Your task to perform on an android device: turn on improve location accuracy Image 0: 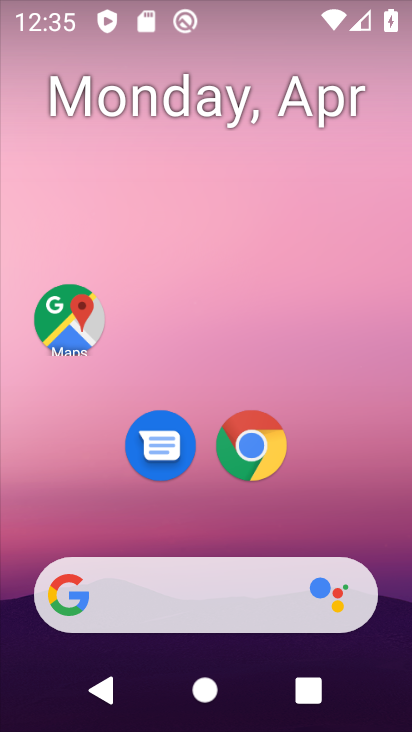
Step 0: drag from (379, 416) to (381, 117)
Your task to perform on an android device: turn on improve location accuracy Image 1: 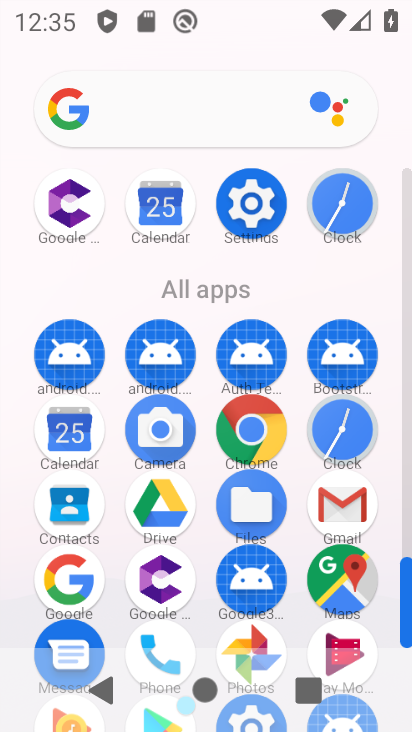
Step 1: click (251, 209)
Your task to perform on an android device: turn on improve location accuracy Image 2: 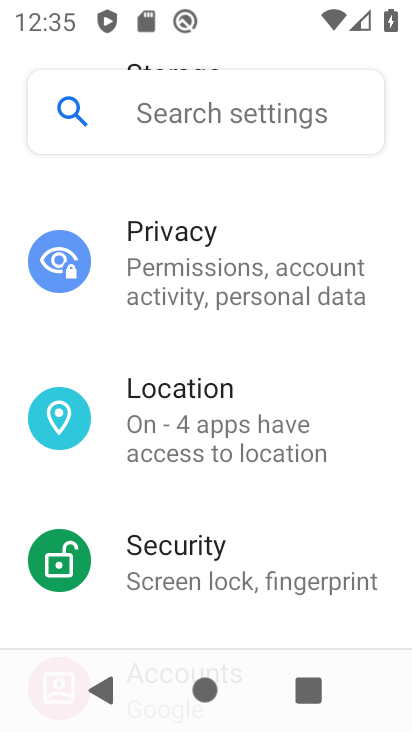
Step 2: drag from (386, 216) to (381, 398)
Your task to perform on an android device: turn on improve location accuracy Image 3: 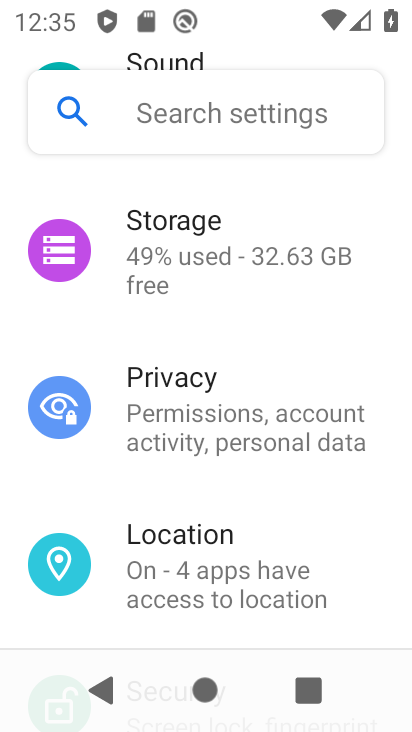
Step 3: drag from (386, 205) to (392, 351)
Your task to perform on an android device: turn on improve location accuracy Image 4: 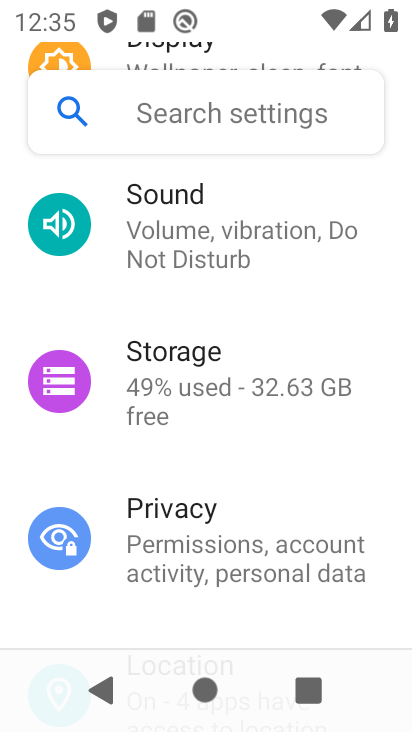
Step 4: drag from (376, 187) to (373, 362)
Your task to perform on an android device: turn on improve location accuracy Image 5: 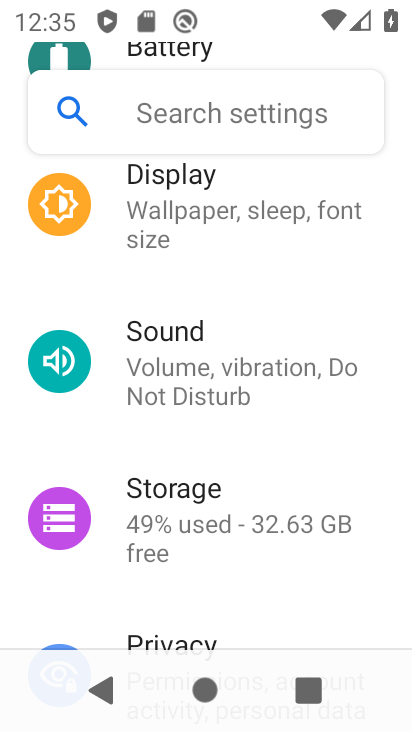
Step 5: drag from (385, 208) to (376, 355)
Your task to perform on an android device: turn on improve location accuracy Image 6: 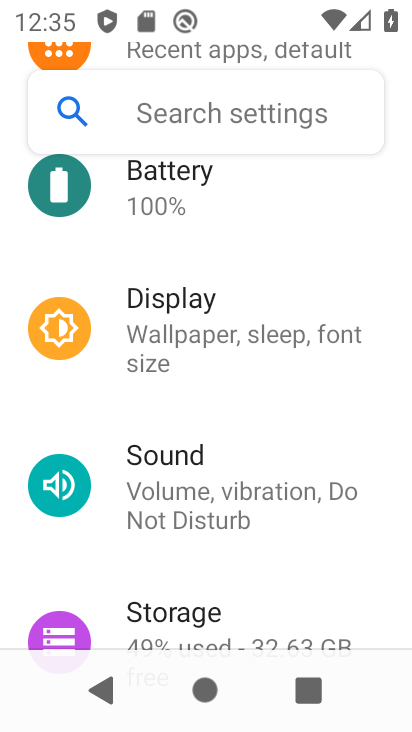
Step 6: drag from (376, 229) to (370, 406)
Your task to perform on an android device: turn on improve location accuracy Image 7: 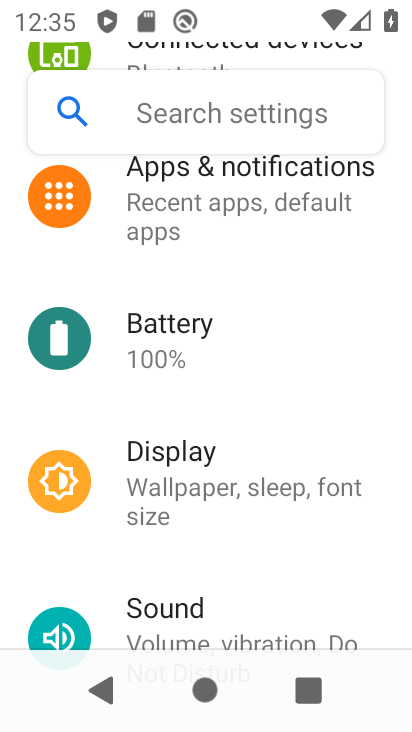
Step 7: drag from (370, 211) to (362, 371)
Your task to perform on an android device: turn on improve location accuracy Image 8: 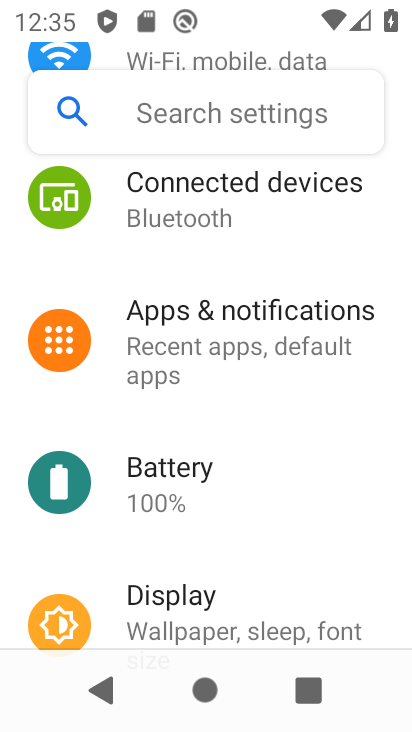
Step 8: drag from (383, 203) to (369, 482)
Your task to perform on an android device: turn on improve location accuracy Image 9: 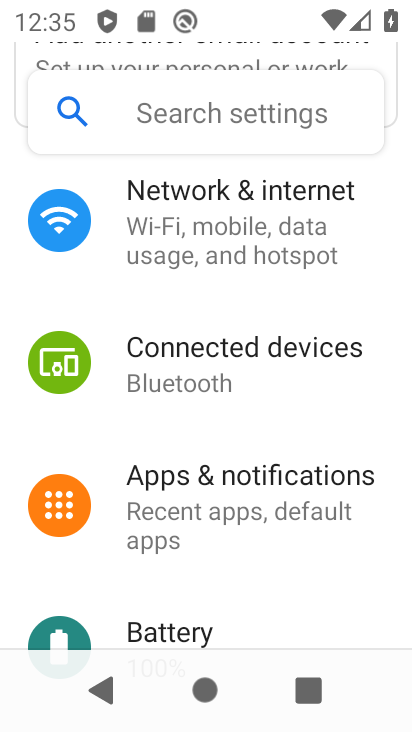
Step 9: drag from (379, 202) to (372, 384)
Your task to perform on an android device: turn on improve location accuracy Image 10: 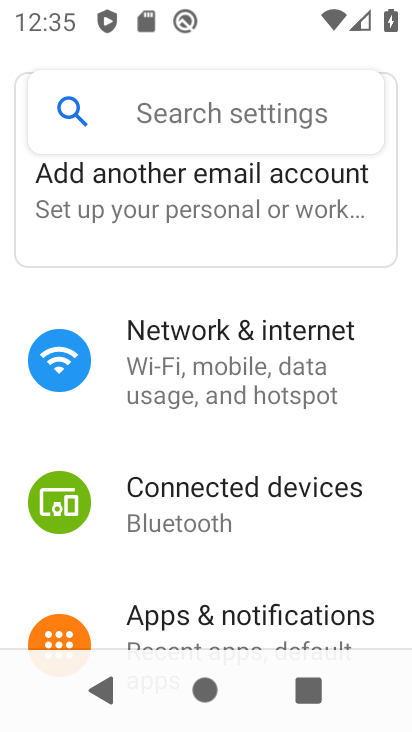
Step 10: drag from (377, 440) to (384, 254)
Your task to perform on an android device: turn on improve location accuracy Image 11: 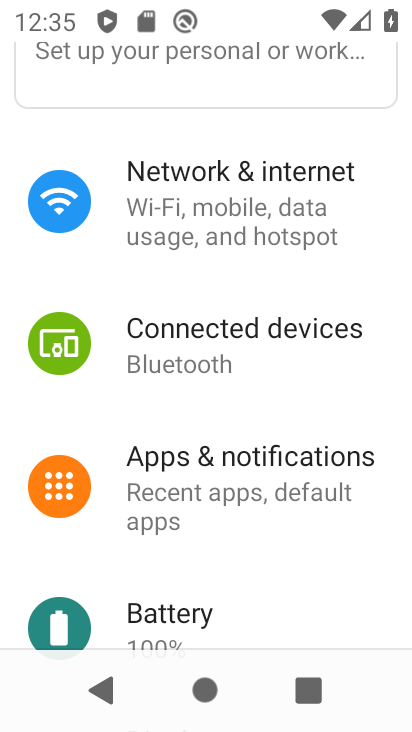
Step 11: drag from (387, 403) to (406, 299)
Your task to perform on an android device: turn on improve location accuracy Image 12: 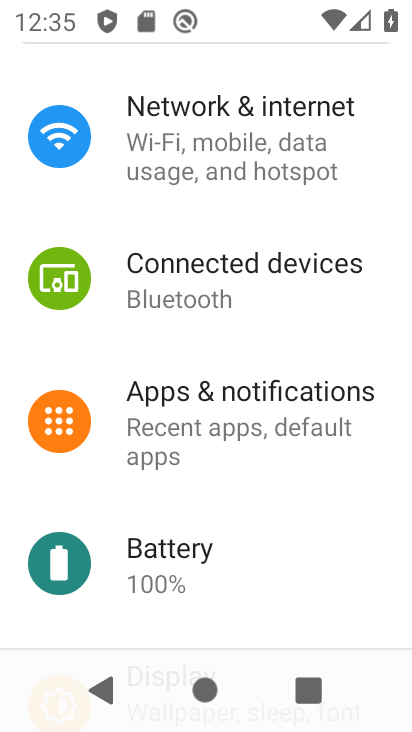
Step 12: drag from (375, 568) to (391, 339)
Your task to perform on an android device: turn on improve location accuracy Image 13: 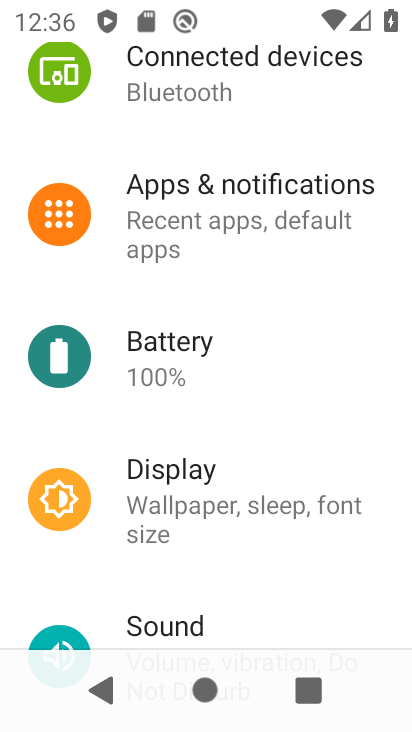
Step 13: drag from (386, 605) to (383, 277)
Your task to perform on an android device: turn on improve location accuracy Image 14: 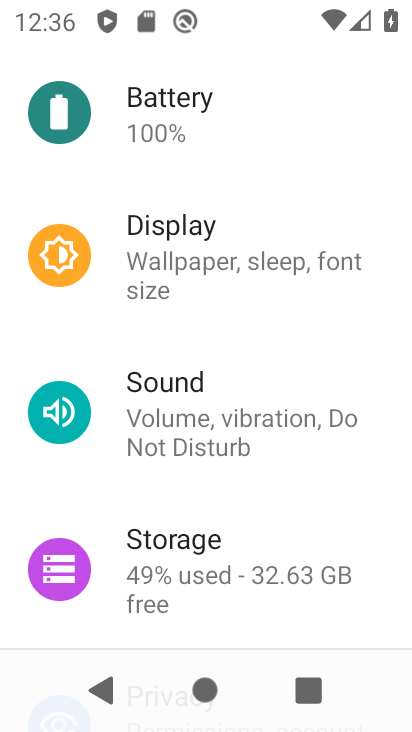
Step 14: drag from (370, 554) to (359, 249)
Your task to perform on an android device: turn on improve location accuracy Image 15: 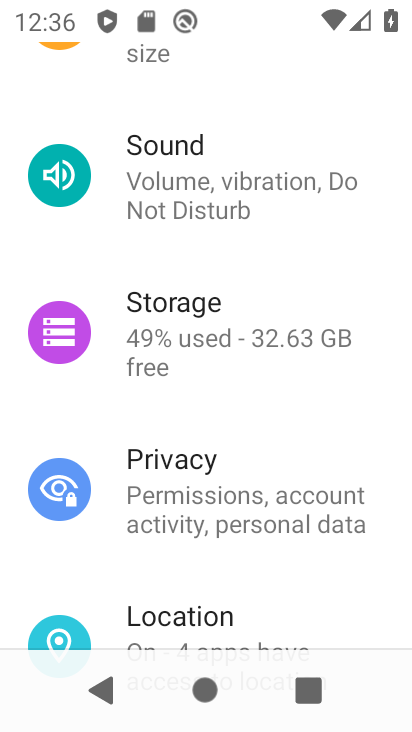
Step 15: drag from (336, 541) to (334, 384)
Your task to perform on an android device: turn on improve location accuracy Image 16: 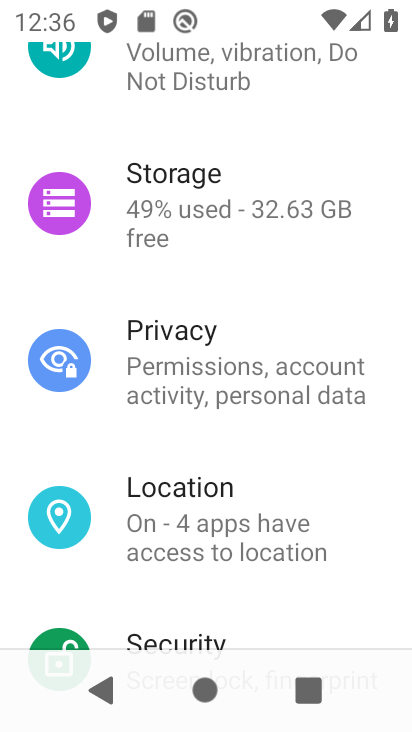
Step 16: click (277, 519)
Your task to perform on an android device: turn on improve location accuracy Image 17: 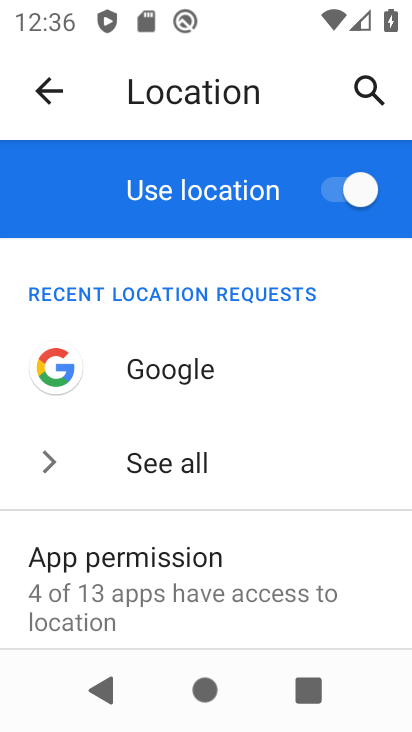
Step 17: drag from (338, 542) to (355, 310)
Your task to perform on an android device: turn on improve location accuracy Image 18: 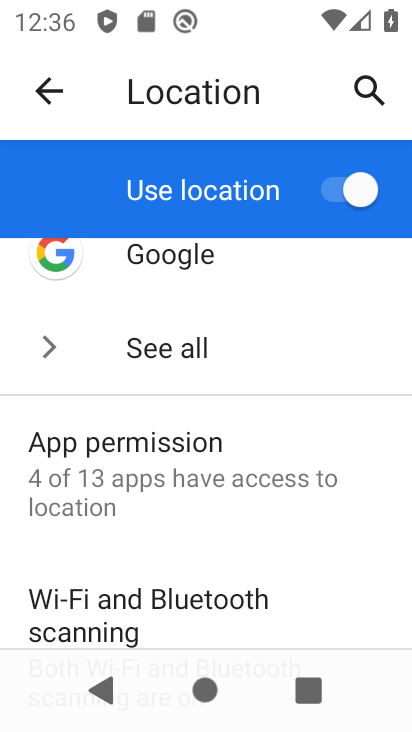
Step 18: drag from (352, 611) to (369, 413)
Your task to perform on an android device: turn on improve location accuracy Image 19: 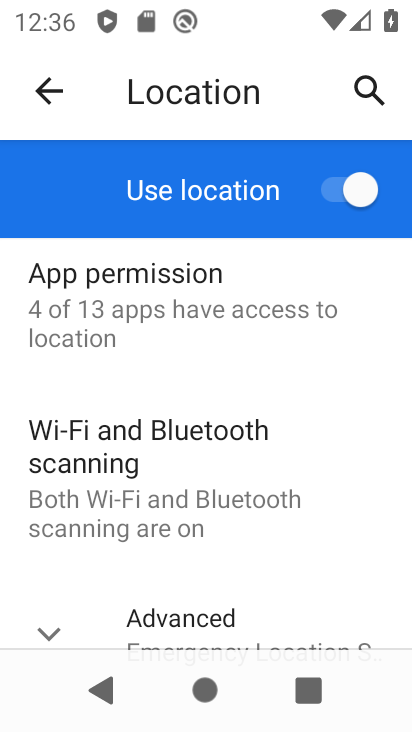
Step 19: drag from (360, 581) to (381, 334)
Your task to perform on an android device: turn on improve location accuracy Image 20: 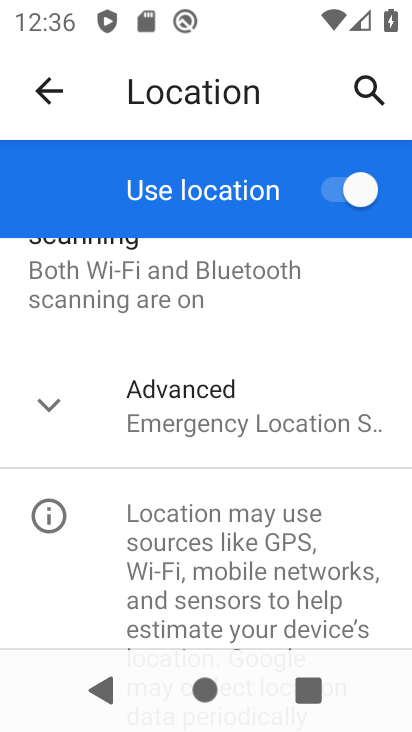
Step 20: click (280, 427)
Your task to perform on an android device: turn on improve location accuracy Image 21: 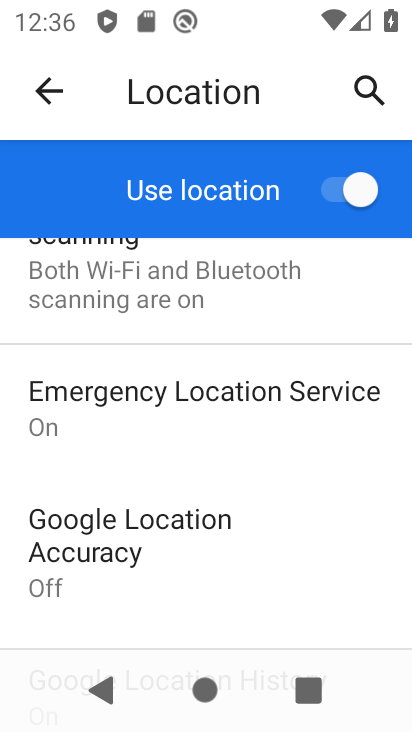
Step 21: drag from (336, 573) to (340, 390)
Your task to perform on an android device: turn on improve location accuracy Image 22: 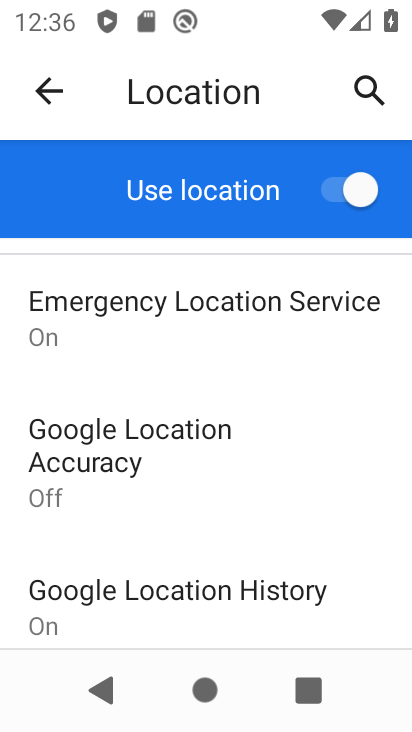
Step 22: click (200, 456)
Your task to perform on an android device: turn on improve location accuracy Image 23: 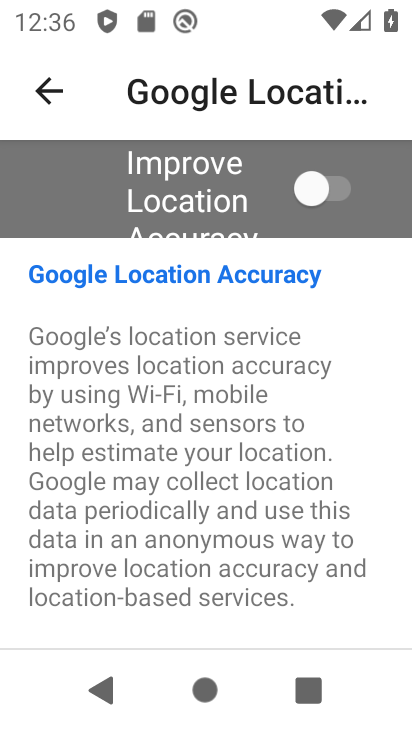
Step 23: click (306, 204)
Your task to perform on an android device: turn on improve location accuracy Image 24: 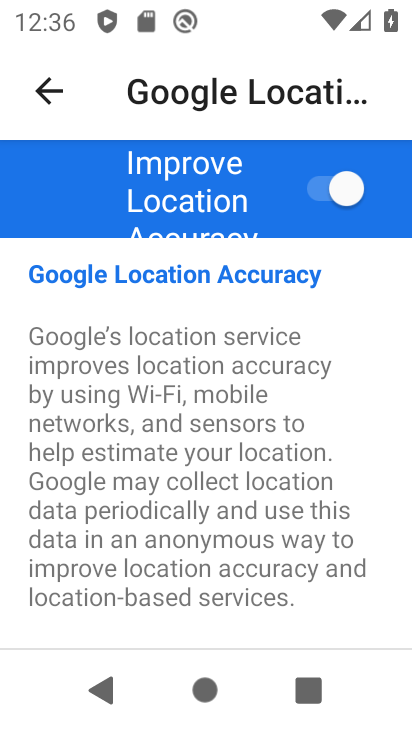
Step 24: task complete